Your task to perform on an android device: Is it going to rain tomorrow? Image 0: 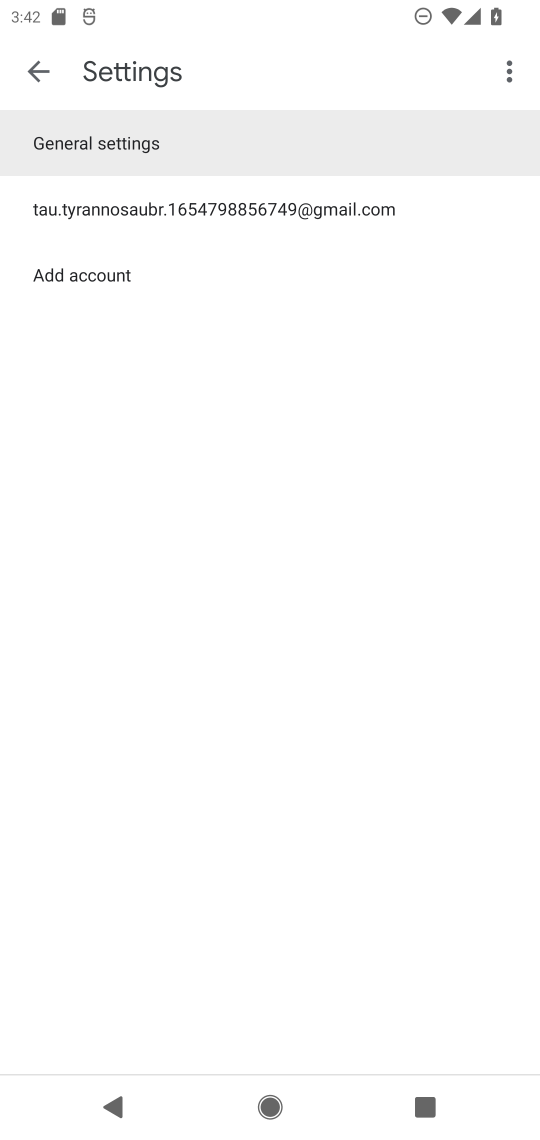
Step 0: press home button
Your task to perform on an android device: Is it going to rain tomorrow? Image 1: 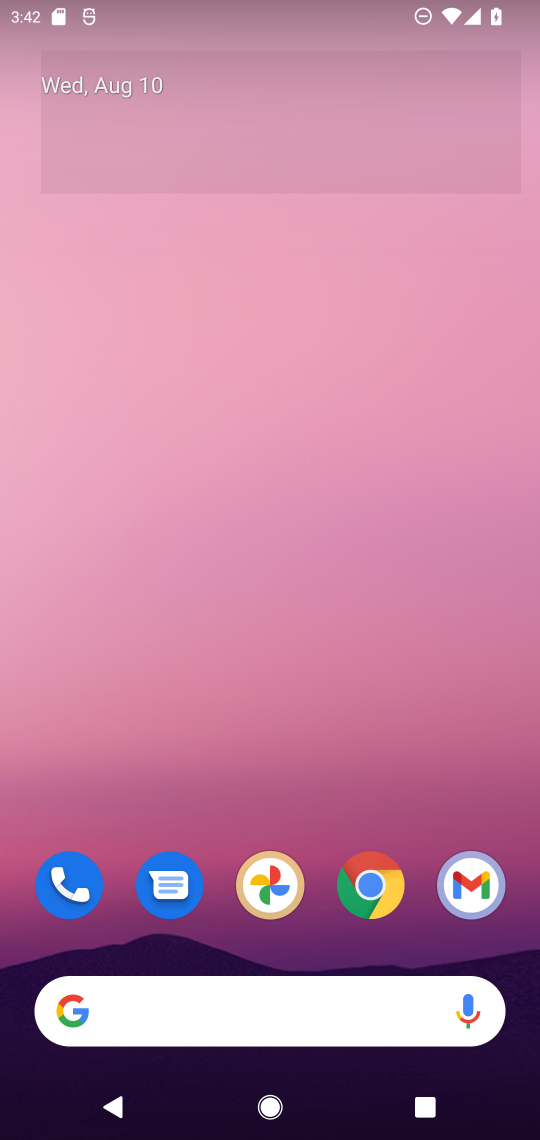
Step 1: drag from (330, 925) to (285, 332)
Your task to perform on an android device: Is it going to rain tomorrow? Image 2: 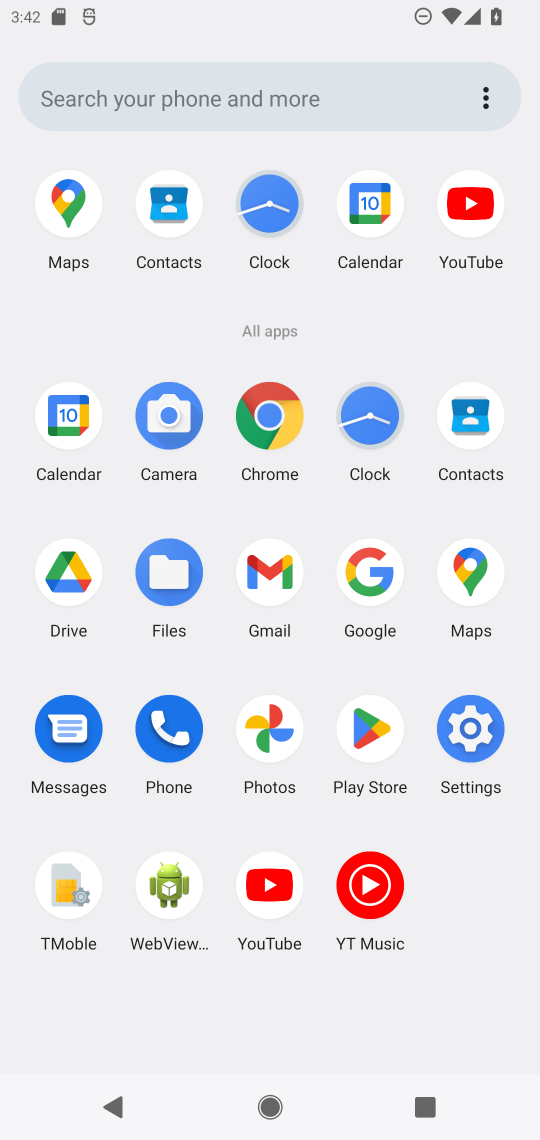
Step 2: click (372, 569)
Your task to perform on an android device: Is it going to rain tomorrow? Image 3: 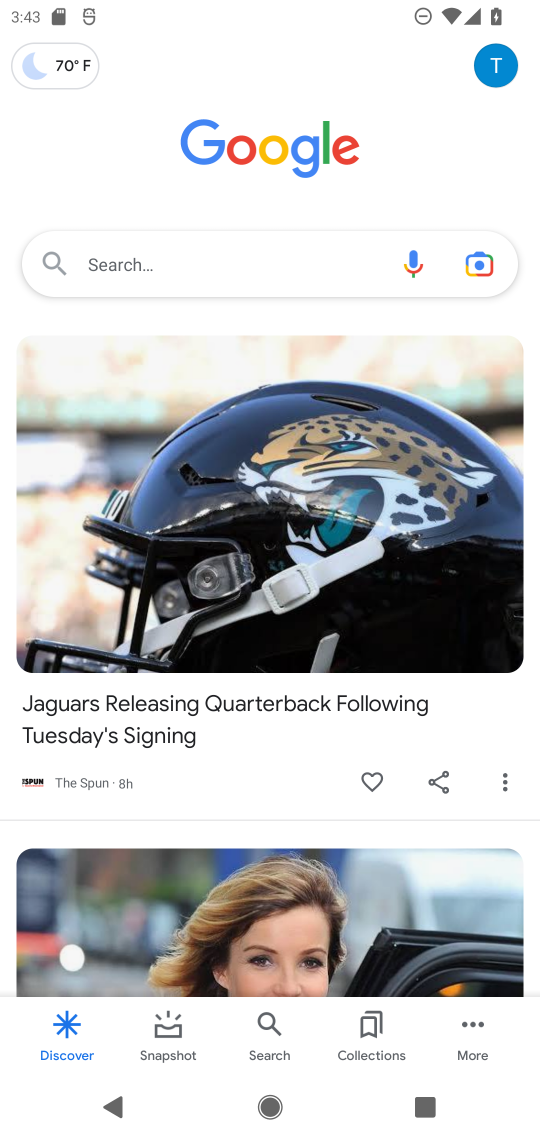
Step 3: click (231, 253)
Your task to perform on an android device: Is it going to rain tomorrow? Image 4: 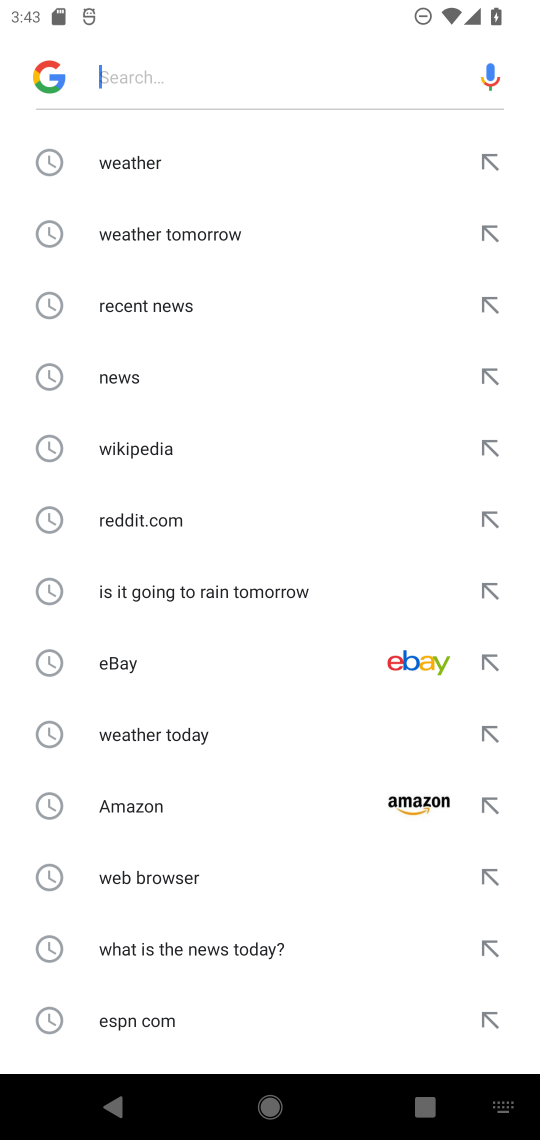
Step 4: click (173, 235)
Your task to perform on an android device: Is it going to rain tomorrow? Image 5: 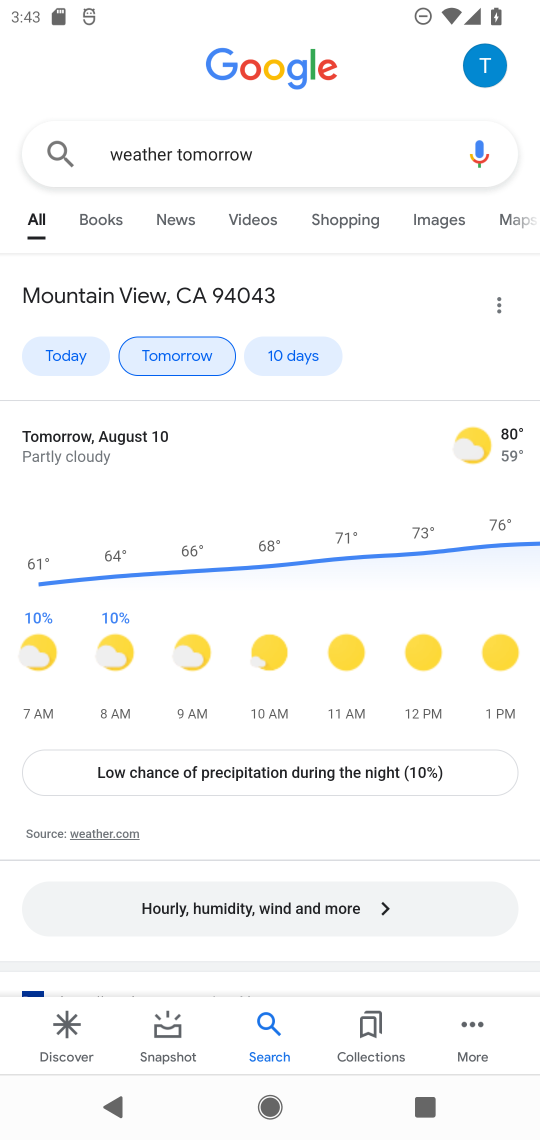
Step 5: task complete